Your task to perform on an android device: Do I have any events this weekend? Image 0: 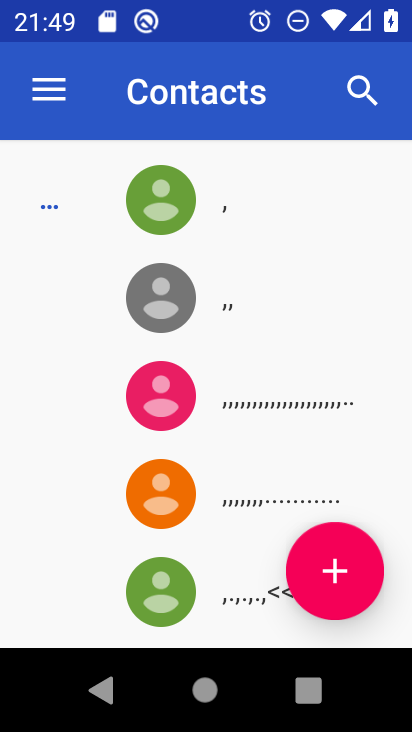
Step 0: press home button
Your task to perform on an android device: Do I have any events this weekend? Image 1: 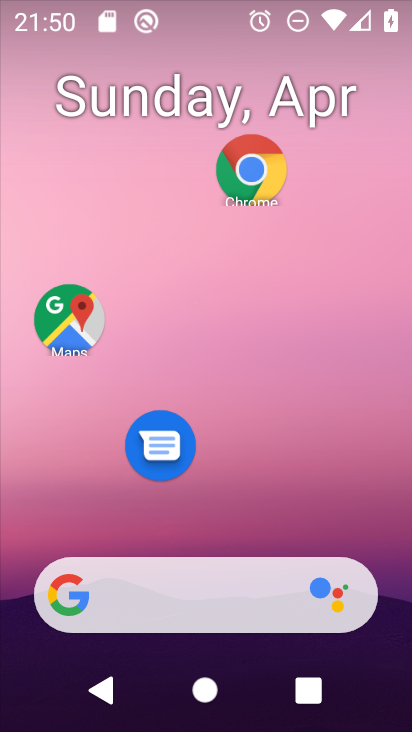
Step 1: drag from (230, 484) to (316, 61)
Your task to perform on an android device: Do I have any events this weekend? Image 2: 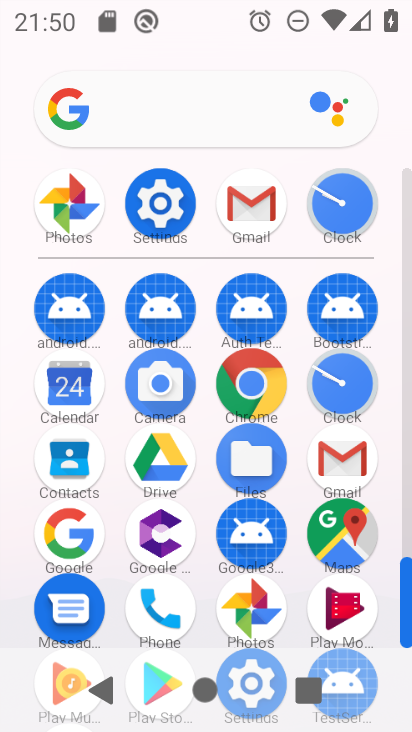
Step 2: click (76, 386)
Your task to perform on an android device: Do I have any events this weekend? Image 3: 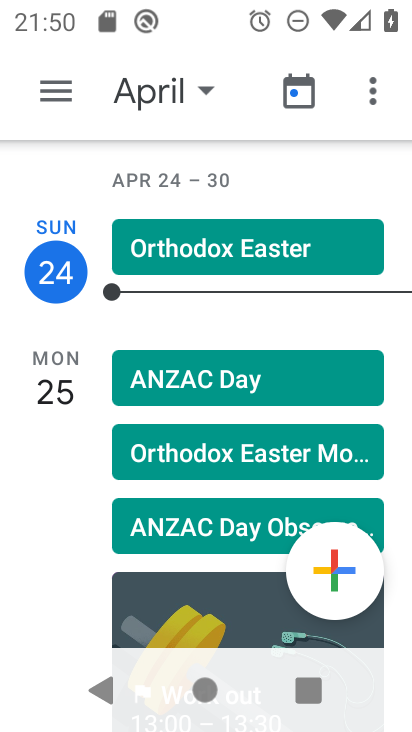
Step 3: click (194, 95)
Your task to perform on an android device: Do I have any events this weekend? Image 4: 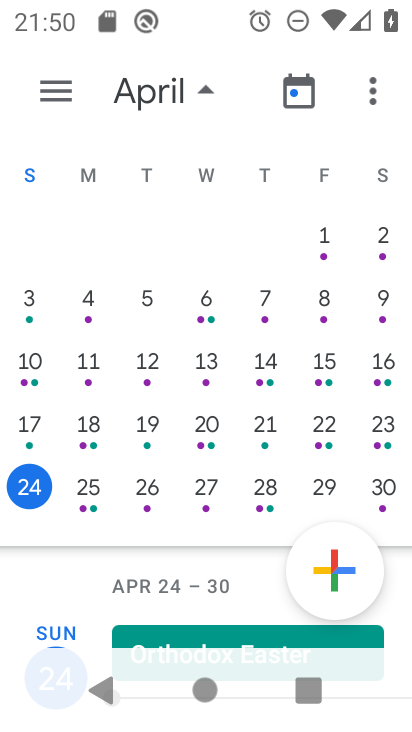
Step 4: click (94, 488)
Your task to perform on an android device: Do I have any events this weekend? Image 5: 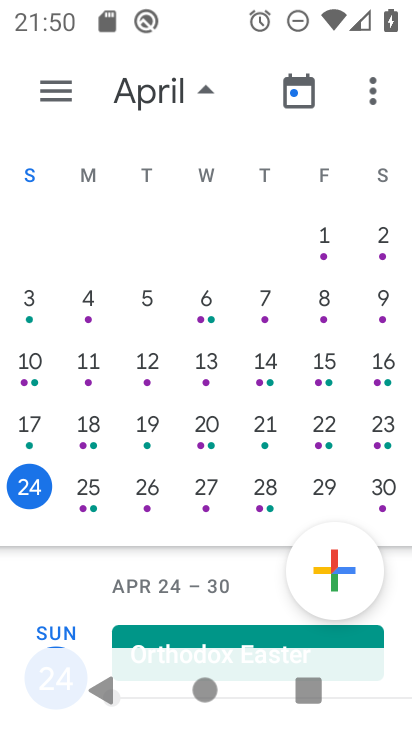
Step 5: click (146, 489)
Your task to perform on an android device: Do I have any events this weekend? Image 6: 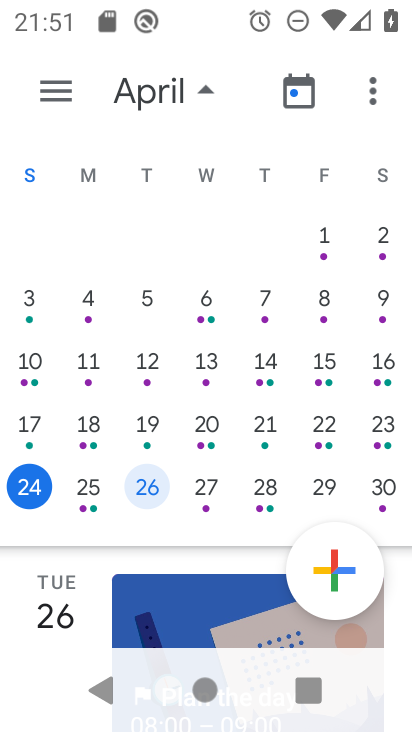
Step 6: task complete